Your task to perform on an android device: toggle priority inbox in the gmail app Image 0: 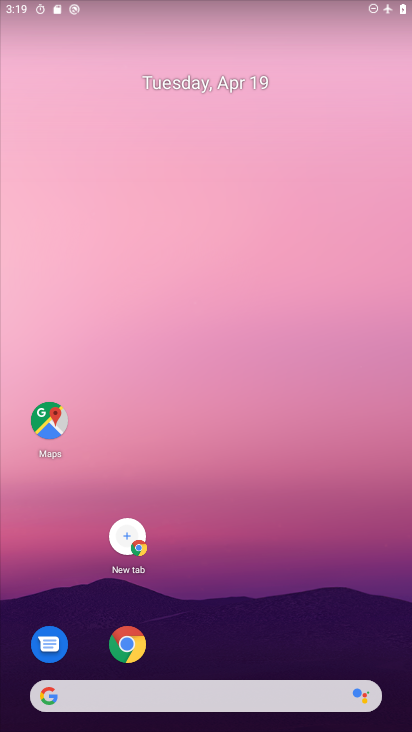
Step 0: drag from (195, 576) to (84, 157)
Your task to perform on an android device: toggle priority inbox in the gmail app Image 1: 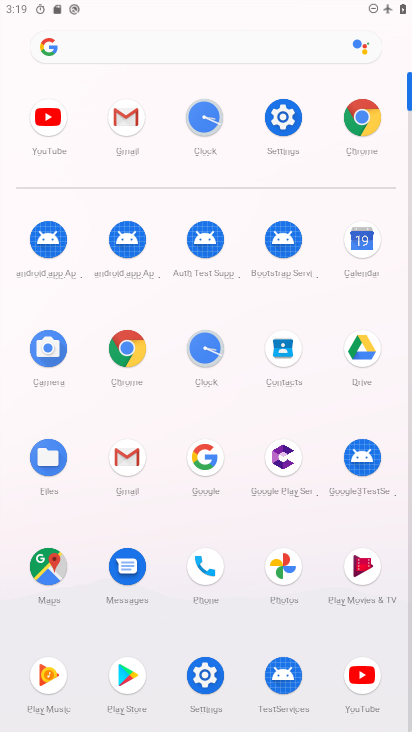
Step 1: click (126, 457)
Your task to perform on an android device: toggle priority inbox in the gmail app Image 2: 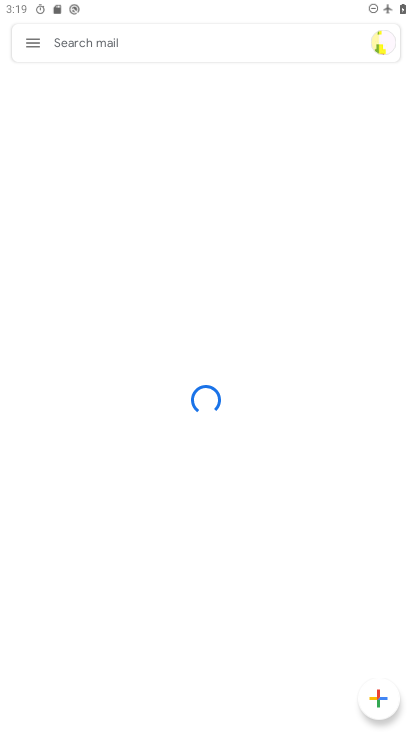
Step 2: click (393, 41)
Your task to perform on an android device: toggle priority inbox in the gmail app Image 3: 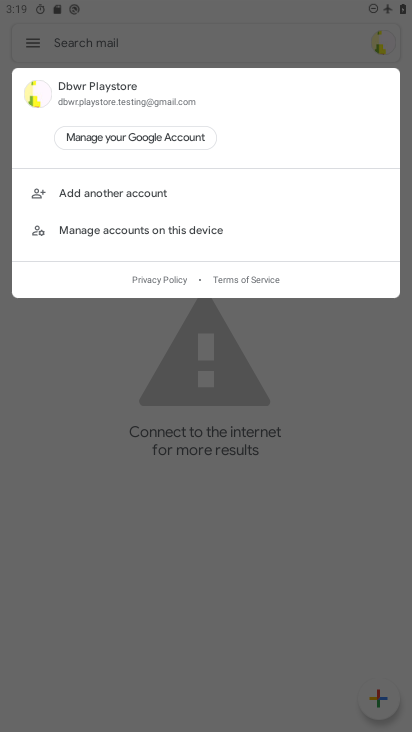
Step 3: click (60, 43)
Your task to perform on an android device: toggle priority inbox in the gmail app Image 4: 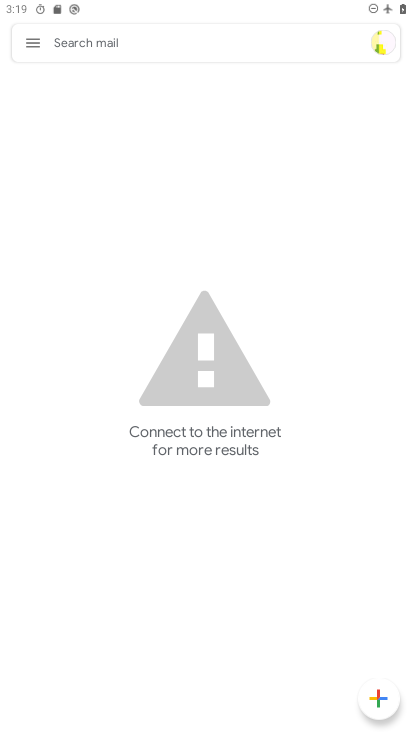
Step 4: click (20, 39)
Your task to perform on an android device: toggle priority inbox in the gmail app Image 5: 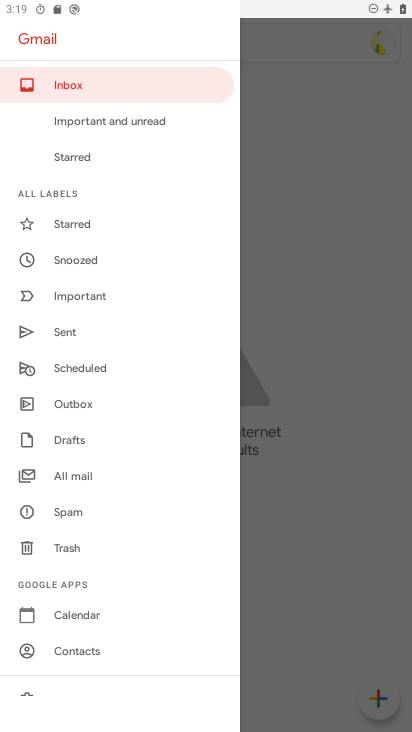
Step 5: drag from (77, 662) to (94, 457)
Your task to perform on an android device: toggle priority inbox in the gmail app Image 6: 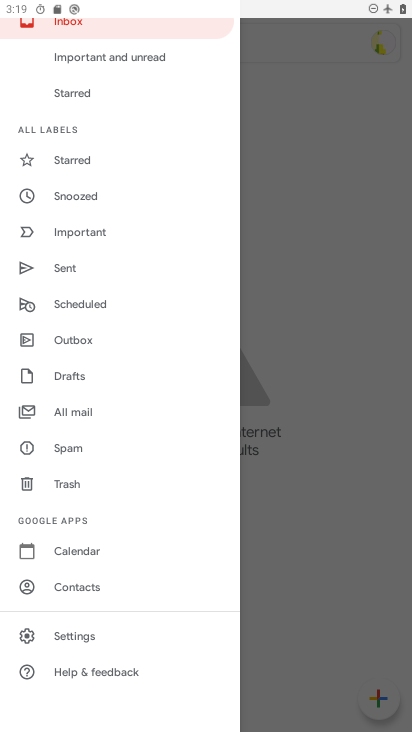
Step 6: click (74, 638)
Your task to perform on an android device: toggle priority inbox in the gmail app Image 7: 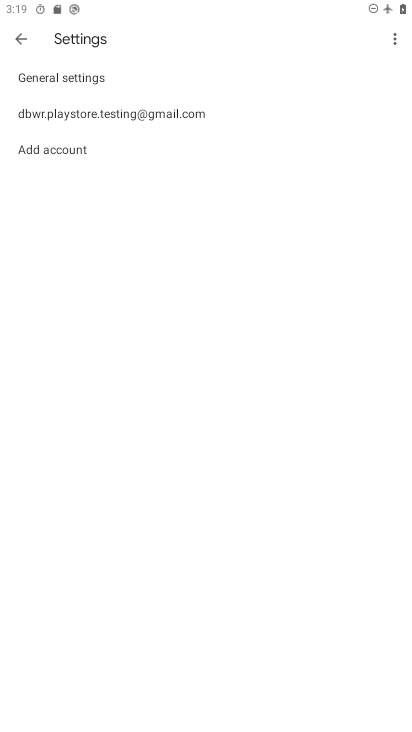
Step 7: click (115, 115)
Your task to perform on an android device: toggle priority inbox in the gmail app Image 8: 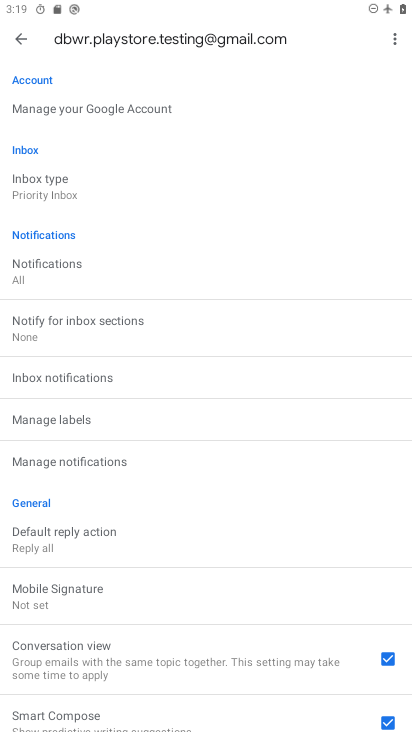
Step 8: click (40, 190)
Your task to perform on an android device: toggle priority inbox in the gmail app Image 9: 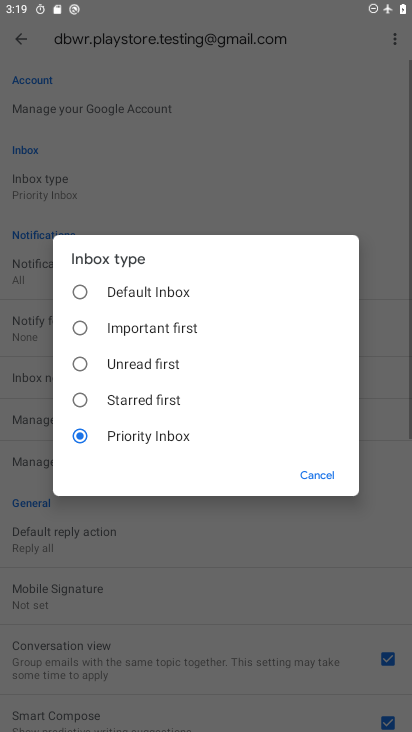
Step 9: click (85, 294)
Your task to perform on an android device: toggle priority inbox in the gmail app Image 10: 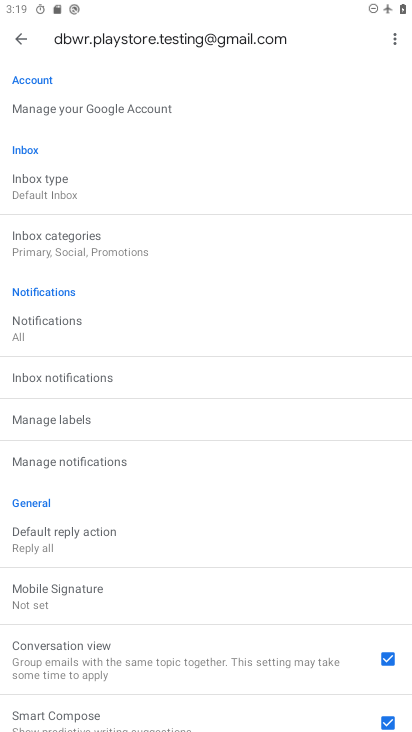
Step 10: task complete